Your task to perform on an android device: Search for pizza restaurants on Maps Image 0: 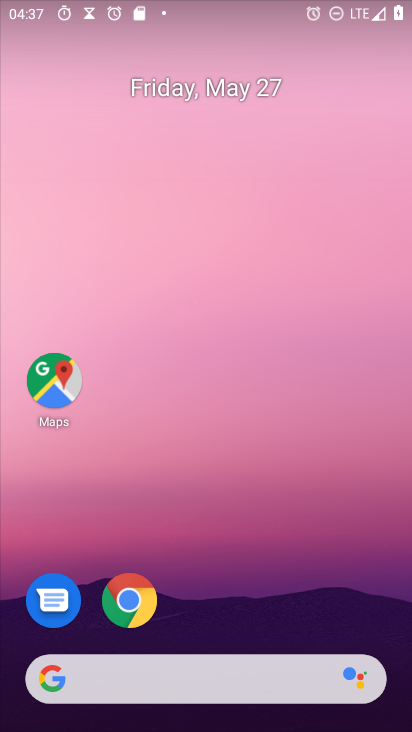
Step 0: drag from (214, 724) to (226, 131)
Your task to perform on an android device: Search for pizza restaurants on Maps Image 1: 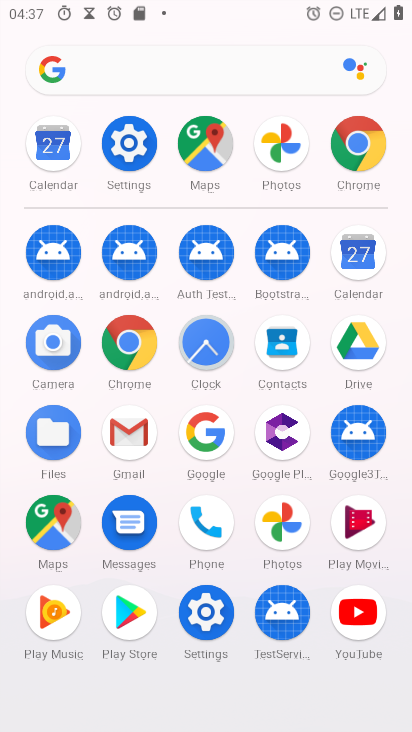
Step 1: click (59, 518)
Your task to perform on an android device: Search for pizza restaurants on Maps Image 2: 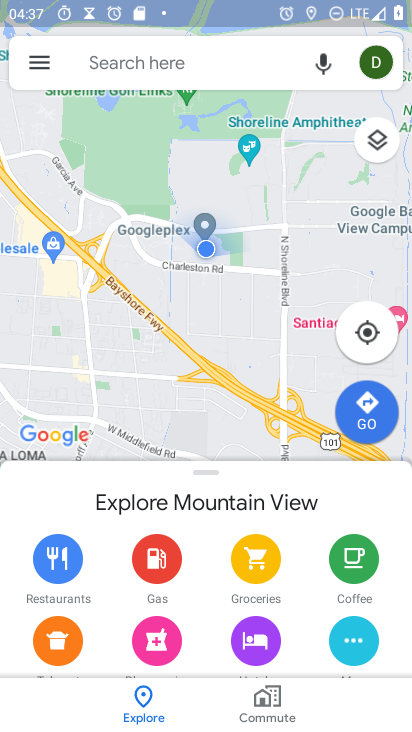
Step 2: click (228, 58)
Your task to perform on an android device: Search for pizza restaurants on Maps Image 3: 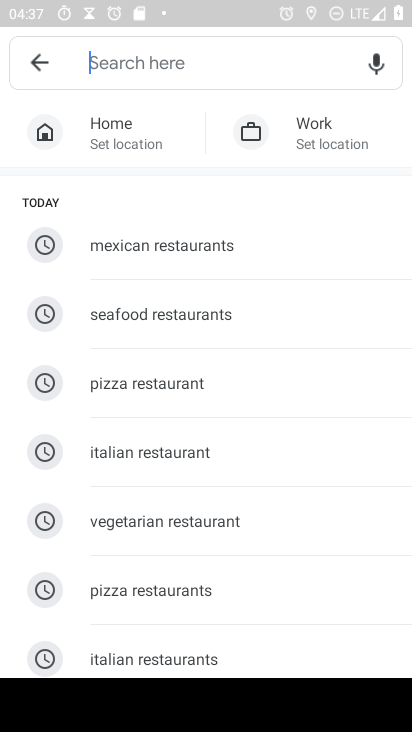
Step 3: type "pizza restaurants"
Your task to perform on an android device: Search for pizza restaurants on Maps Image 4: 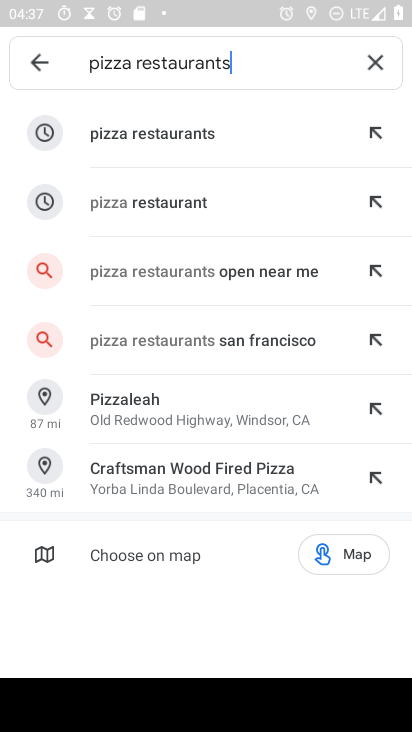
Step 4: click (154, 131)
Your task to perform on an android device: Search for pizza restaurants on Maps Image 5: 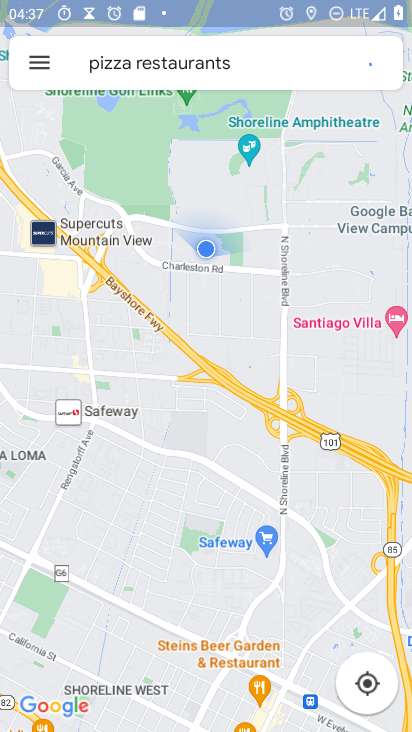
Step 5: task complete